Your task to perform on an android device: Open maps Image 0: 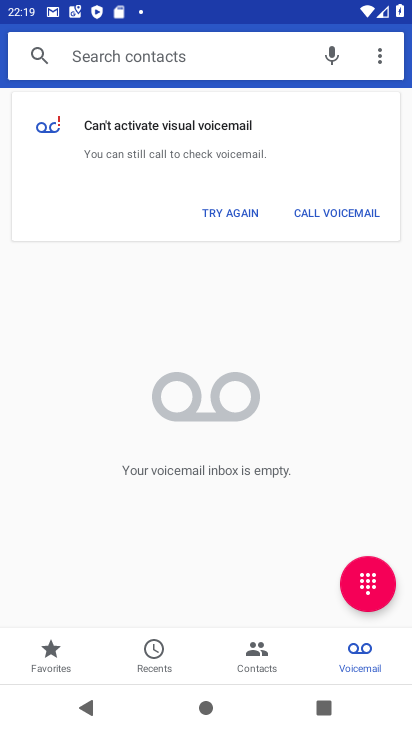
Step 0: press home button
Your task to perform on an android device: Open maps Image 1: 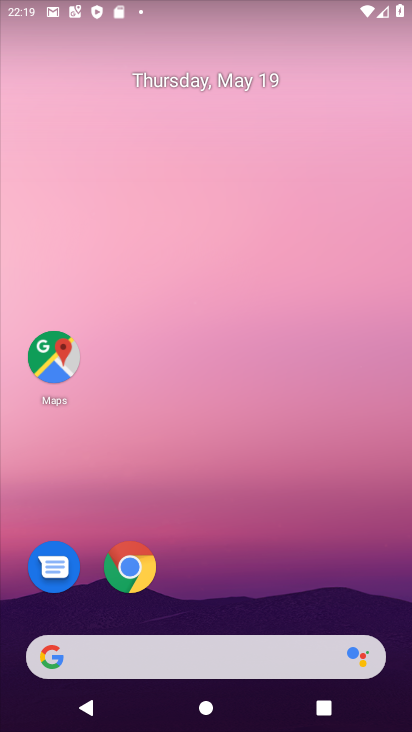
Step 1: click (51, 348)
Your task to perform on an android device: Open maps Image 2: 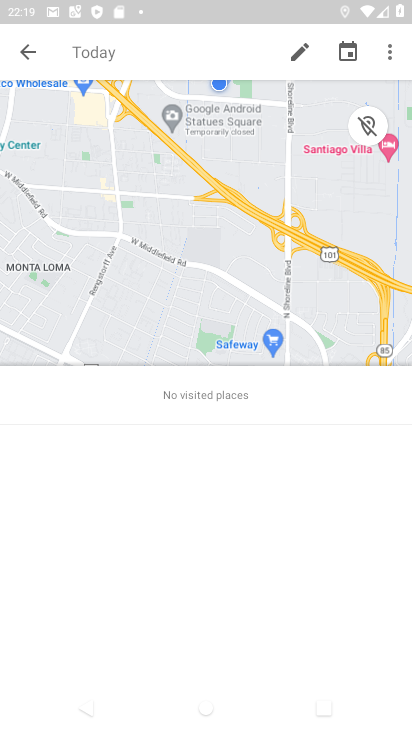
Step 2: click (31, 44)
Your task to perform on an android device: Open maps Image 3: 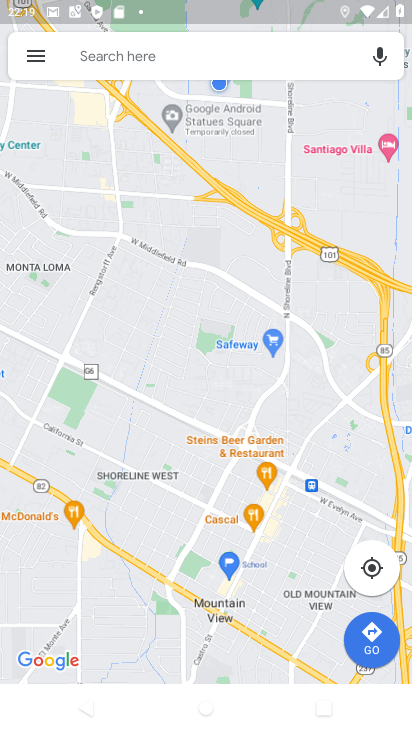
Step 3: task complete